Your task to perform on an android device: open a bookmark in the chrome app Image 0: 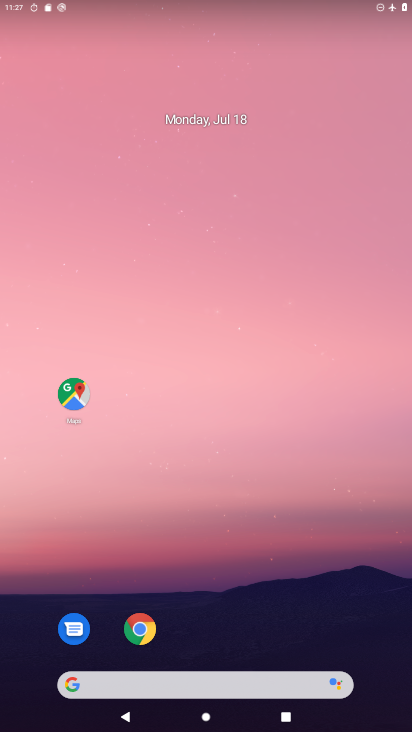
Step 0: drag from (305, 586) to (260, 122)
Your task to perform on an android device: open a bookmark in the chrome app Image 1: 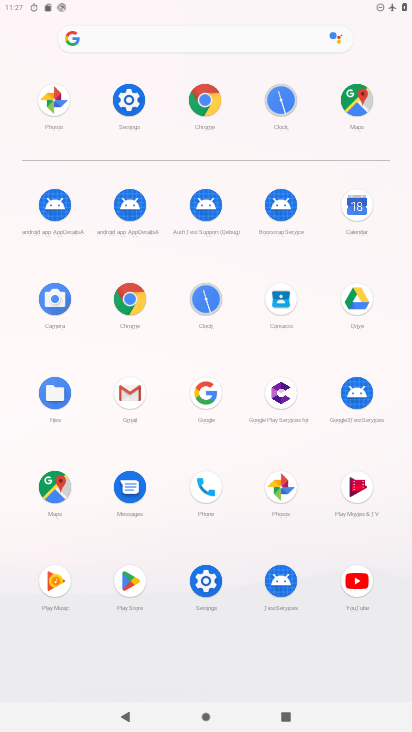
Step 1: click (210, 102)
Your task to perform on an android device: open a bookmark in the chrome app Image 2: 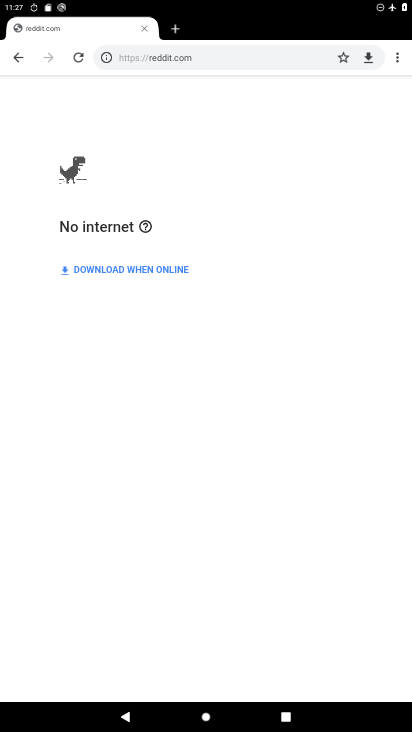
Step 2: drag from (395, 58) to (280, 151)
Your task to perform on an android device: open a bookmark in the chrome app Image 3: 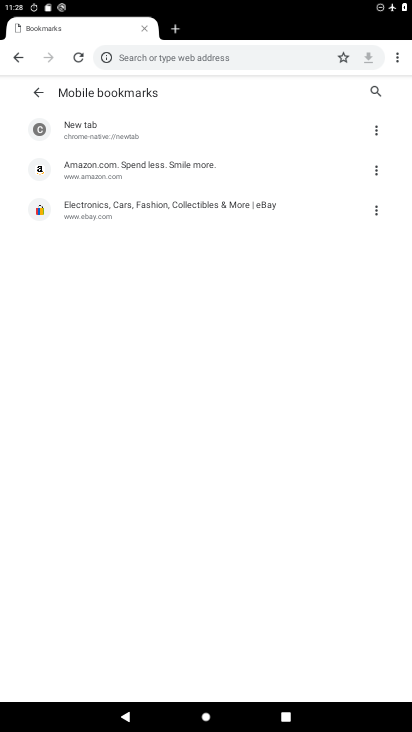
Step 3: click (118, 168)
Your task to perform on an android device: open a bookmark in the chrome app Image 4: 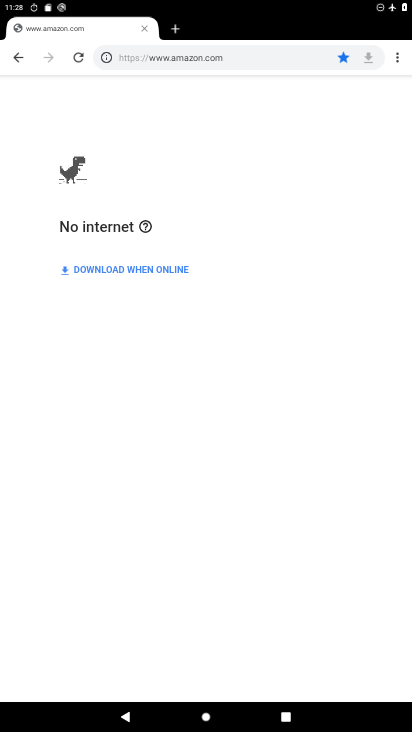
Step 4: task complete